Your task to perform on an android device: change the clock display to digital Image 0: 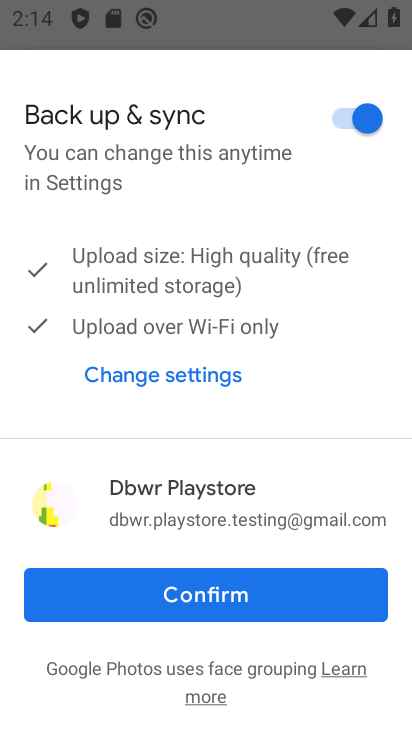
Step 0: press home button
Your task to perform on an android device: change the clock display to digital Image 1: 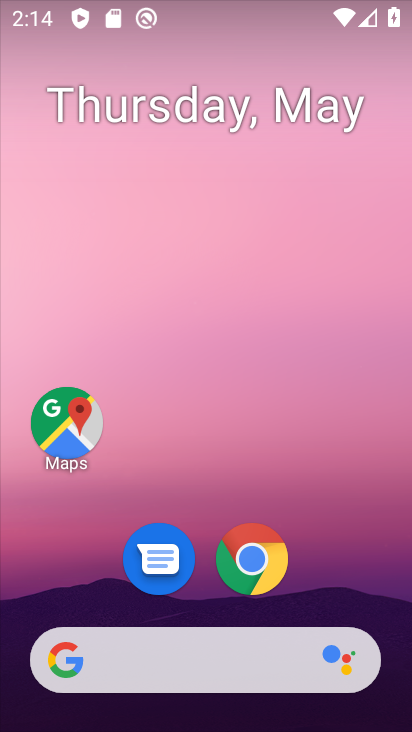
Step 1: drag from (161, 496) to (231, 29)
Your task to perform on an android device: change the clock display to digital Image 2: 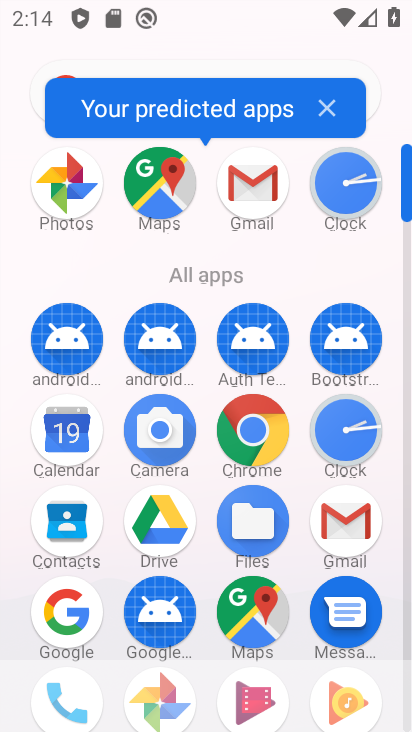
Step 2: click (349, 450)
Your task to perform on an android device: change the clock display to digital Image 3: 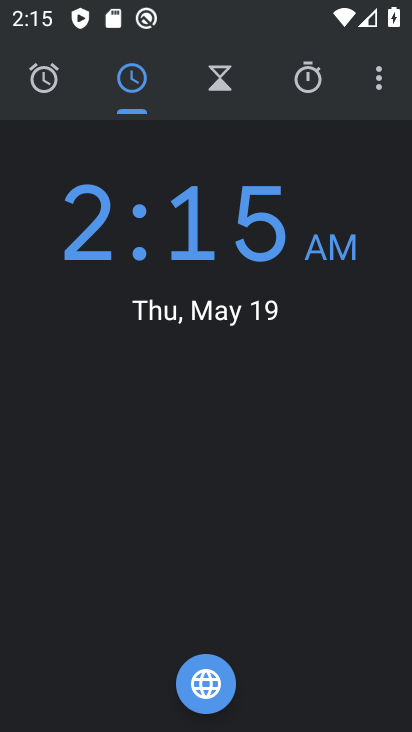
Step 3: click (385, 80)
Your task to perform on an android device: change the clock display to digital Image 4: 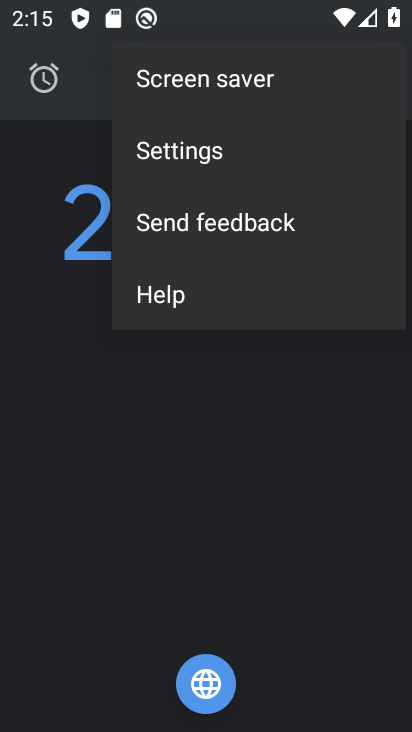
Step 4: click (165, 161)
Your task to perform on an android device: change the clock display to digital Image 5: 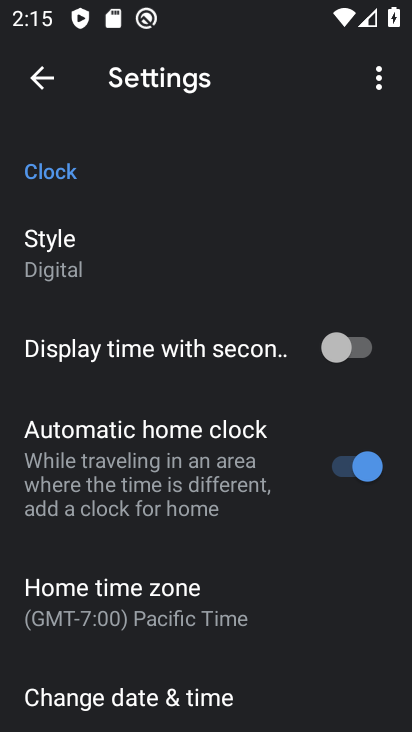
Step 5: click (63, 277)
Your task to perform on an android device: change the clock display to digital Image 6: 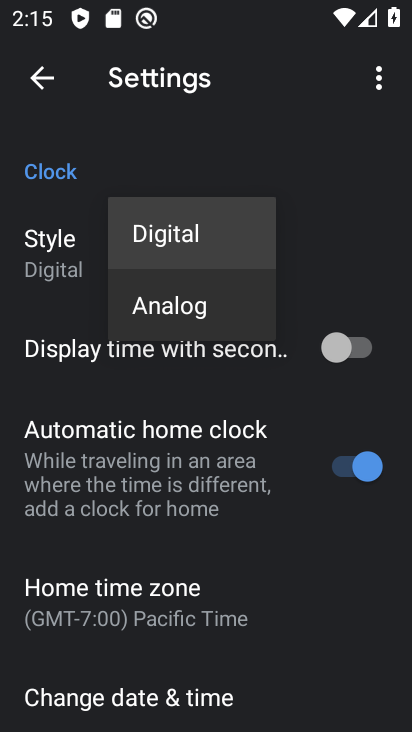
Step 6: task complete